Your task to perform on an android device: manage bookmarks in the chrome app Image 0: 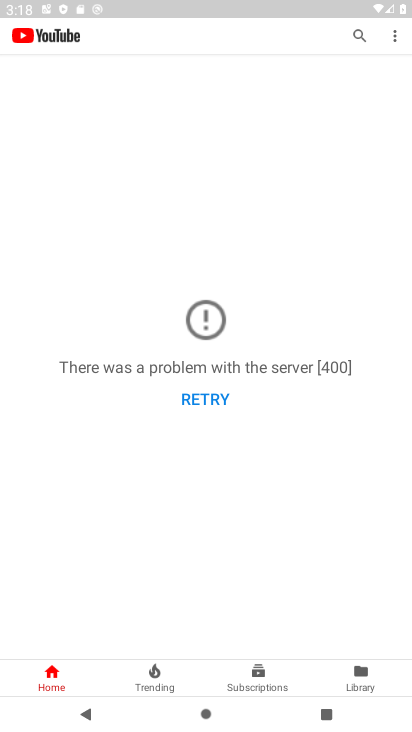
Step 0: press back button
Your task to perform on an android device: manage bookmarks in the chrome app Image 1: 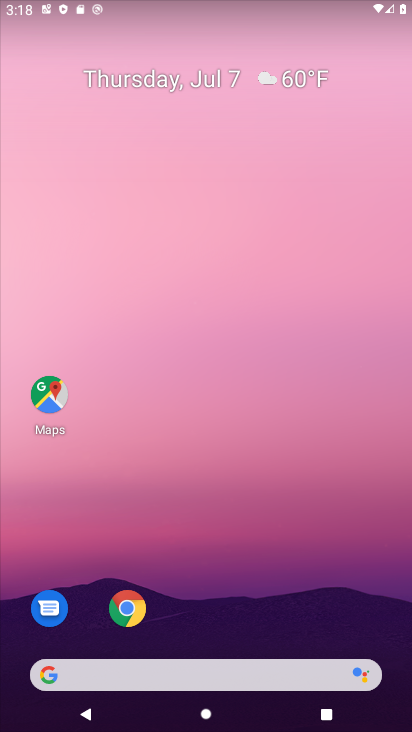
Step 1: drag from (170, 656) to (204, 307)
Your task to perform on an android device: manage bookmarks in the chrome app Image 2: 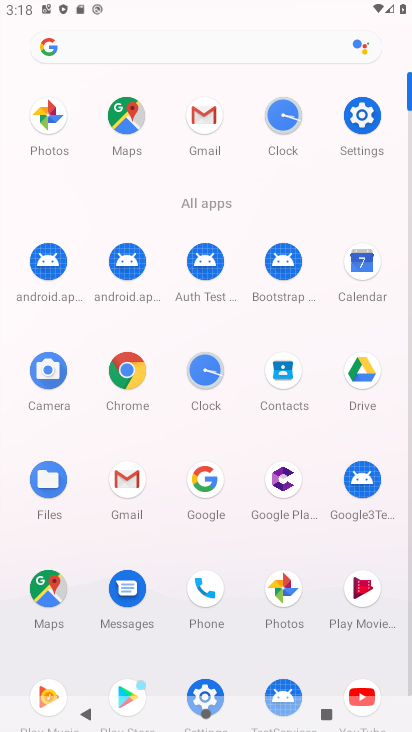
Step 2: click (135, 359)
Your task to perform on an android device: manage bookmarks in the chrome app Image 3: 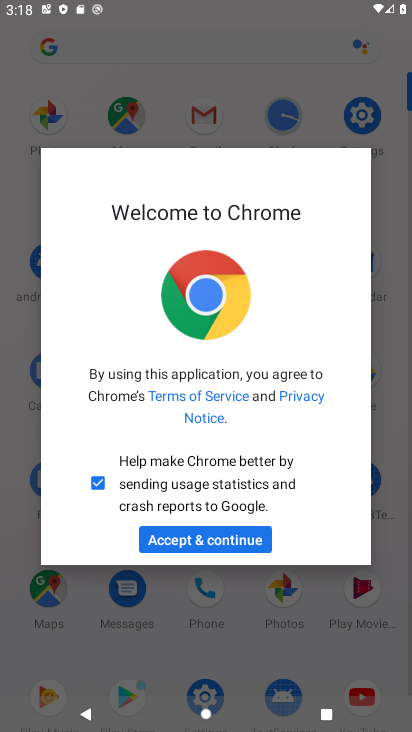
Step 3: click (200, 536)
Your task to perform on an android device: manage bookmarks in the chrome app Image 4: 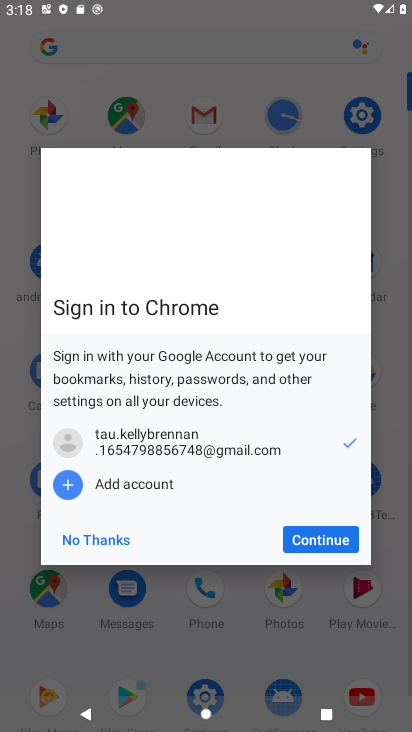
Step 4: click (347, 534)
Your task to perform on an android device: manage bookmarks in the chrome app Image 5: 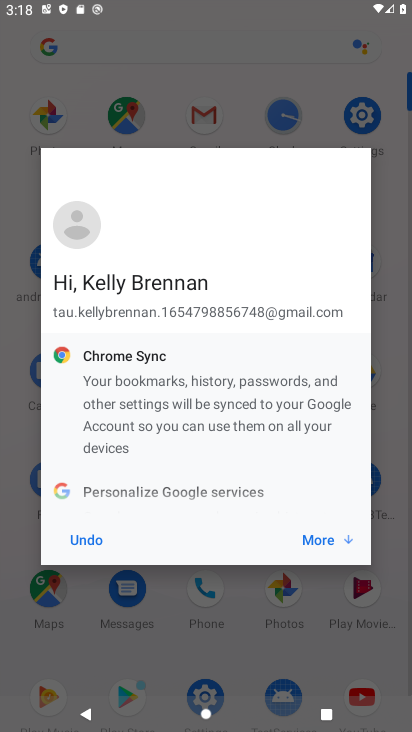
Step 5: click (345, 534)
Your task to perform on an android device: manage bookmarks in the chrome app Image 6: 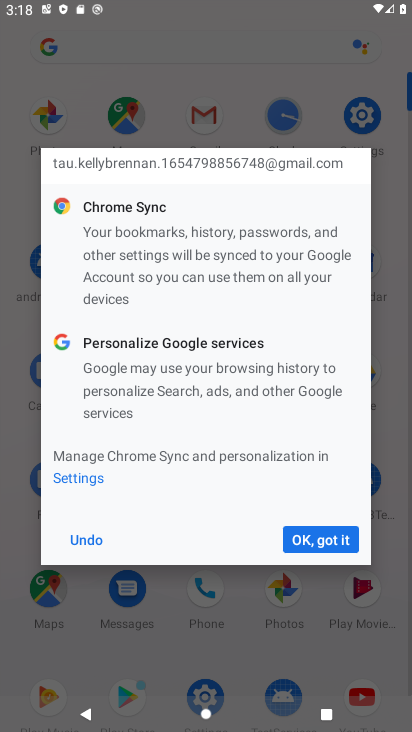
Step 6: click (313, 535)
Your task to perform on an android device: manage bookmarks in the chrome app Image 7: 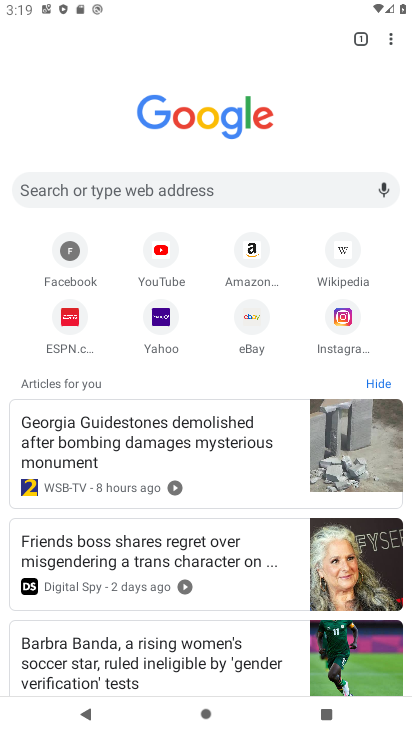
Step 7: drag from (393, 45) to (290, 157)
Your task to perform on an android device: manage bookmarks in the chrome app Image 8: 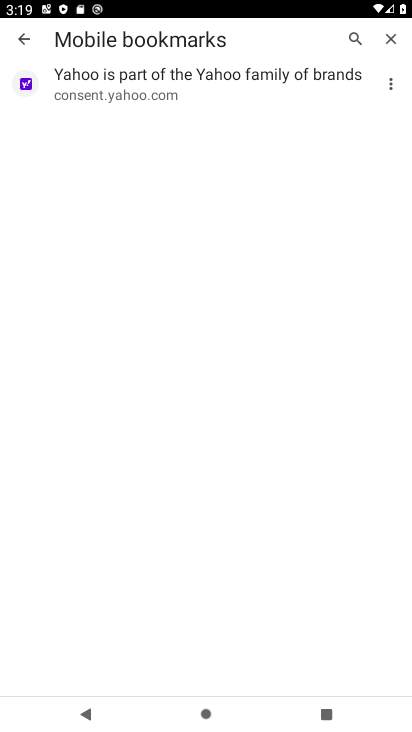
Step 8: click (396, 81)
Your task to perform on an android device: manage bookmarks in the chrome app Image 9: 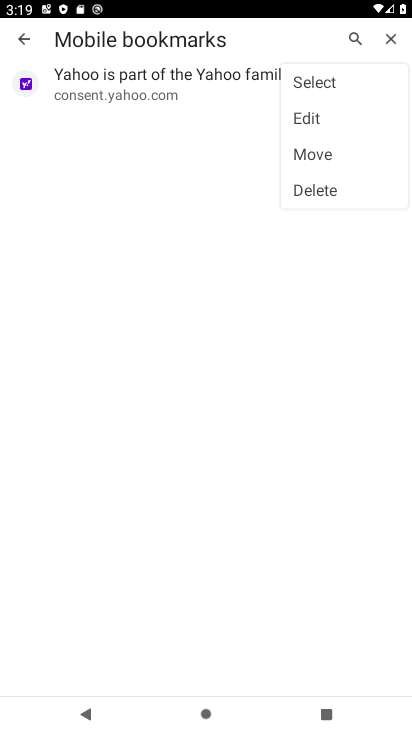
Step 9: click (324, 180)
Your task to perform on an android device: manage bookmarks in the chrome app Image 10: 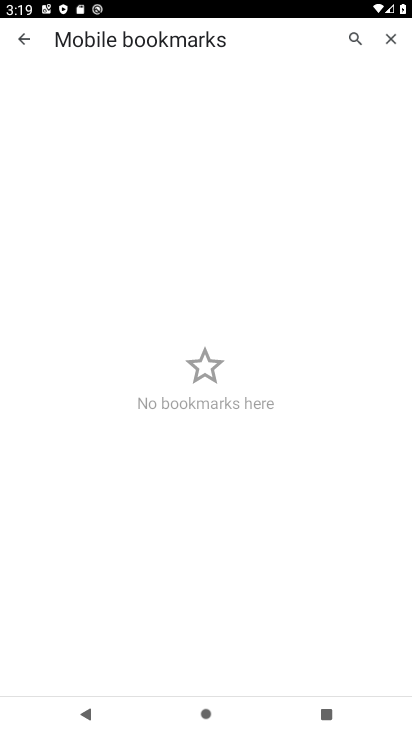
Step 10: task complete